Your task to perform on an android device: turn on notifications settings in the gmail app Image 0: 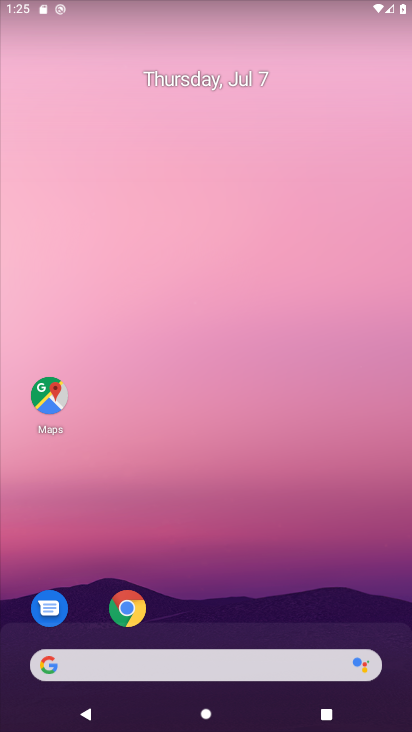
Step 0: drag from (172, 647) to (282, 126)
Your task to perform on an android device: turn on notifications settings in the gmail app Image 1: 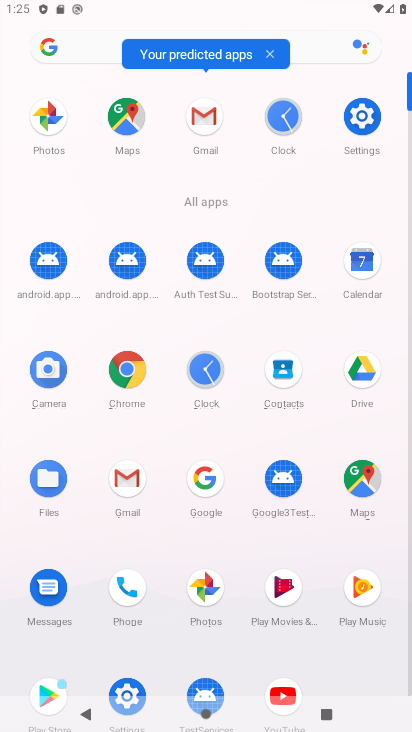
Step 1: click (125, 483)
Your task to perform on an android device: turn on notifications settings in the gmail app Image 2: 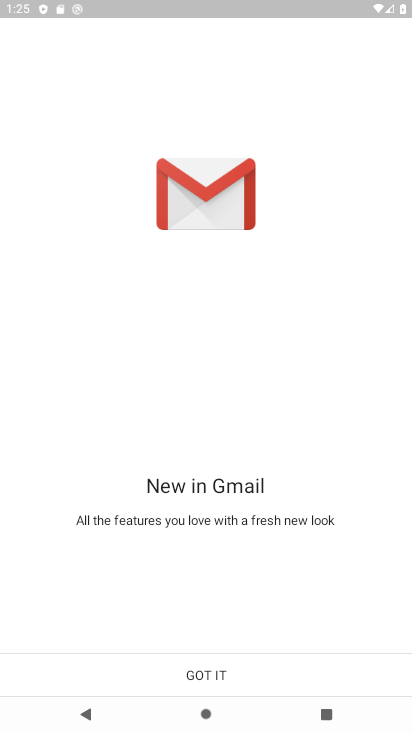
Step 2: click (204, 659)
Your task to perform on an android device: turn on notifications settings in the gmail app Image 3: 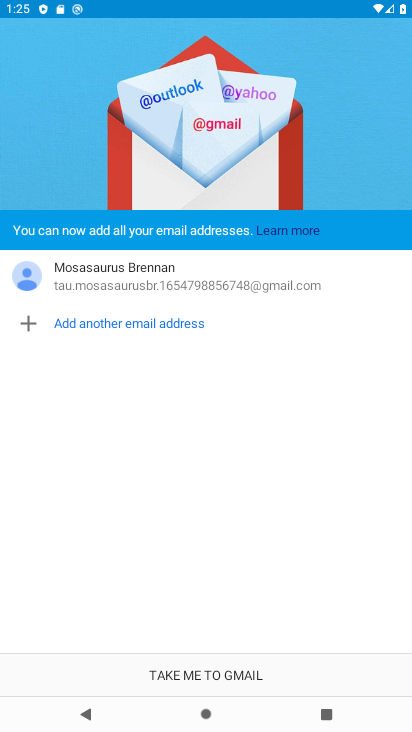
Step 3: click (215, 667)
Your task to perform on an android device: turn on notifications settings in the gmail app Image 4: 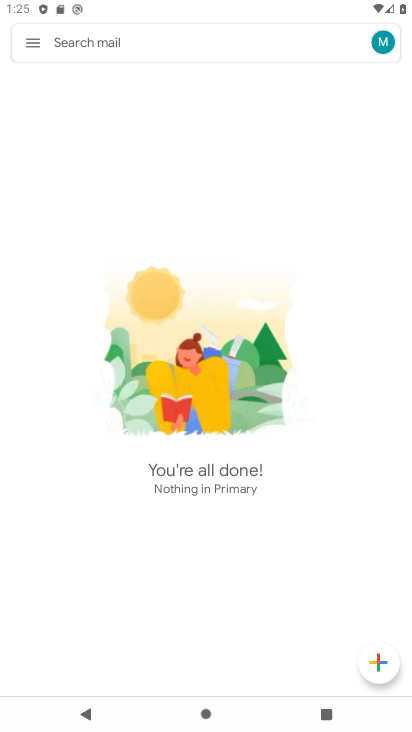
Step 4: click (40, 41)
Your task to perform on an android device: turn on notifications settings in the gmail app Image 5: 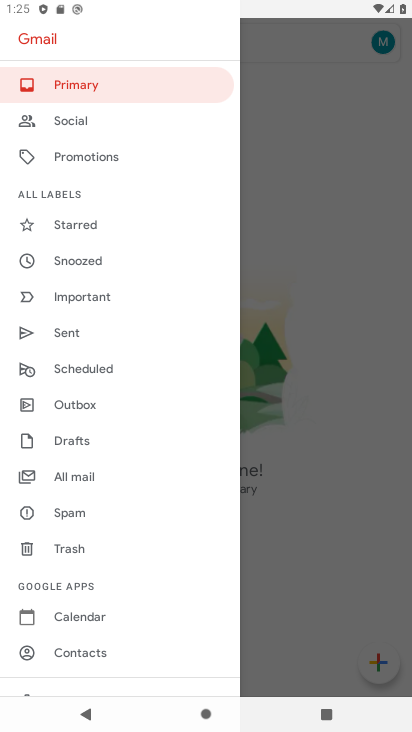
Step 5: drag from (93, 656) to (242, 167)
Your task to perform on an android device: turn on notifications settings in the gmail app Image 6: 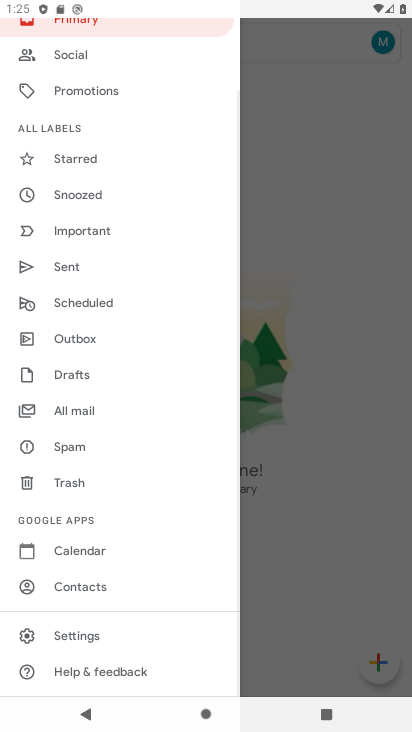
Step 6: click (107, 630)
Your task to perform on an android device: turn on notifications settings in the gmail app Image 7: 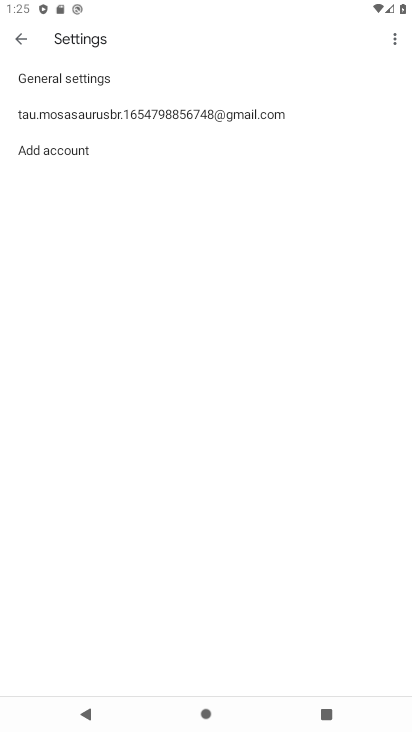
Step 7: click (261, 117)
Your task to perform on an android device: turn on notifications settings in the gmail app Image 8: 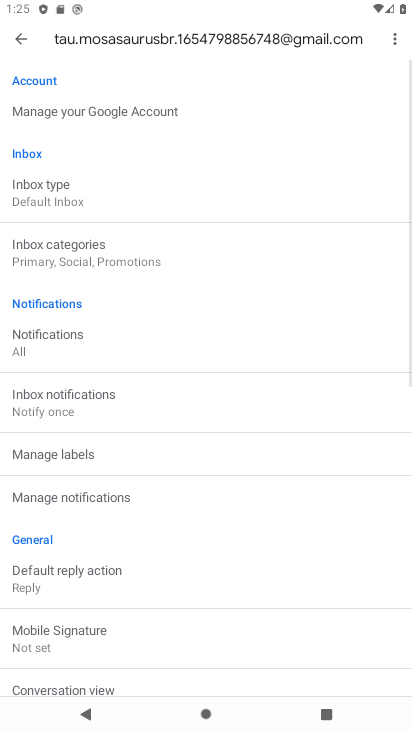
Step 8: click (138, 506)
Your task to perform on an android device: turn on notifications settings in the gmail app Image 9: 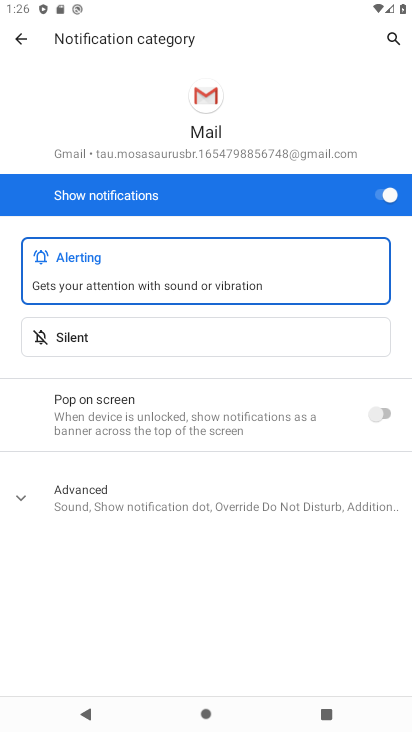
Step 9: task complete